Your task to perform on an android device: move a message to another label in the gmail app Image 0: 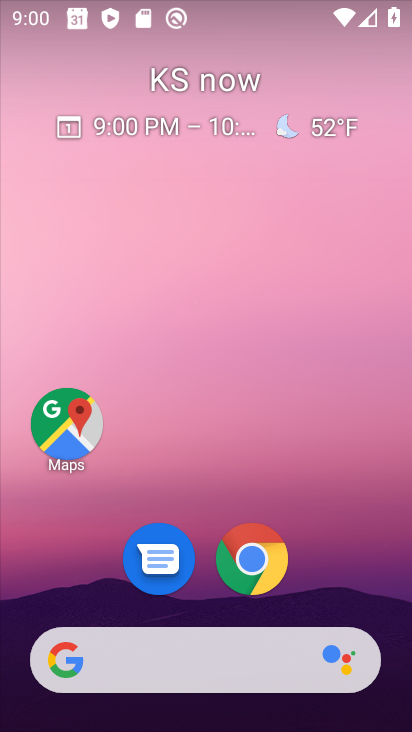
Step 0: drag from (330, 503) to (296, 9)
Your task to perform on an android device: move a message to another label in the gmail app Image 1: 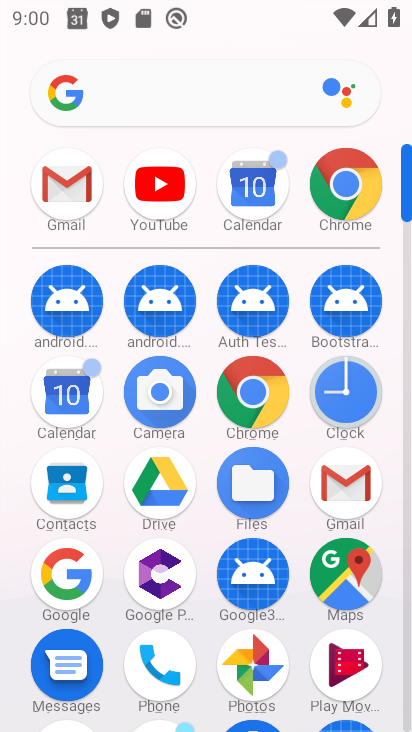
Step 1: drag from (8, 554) to (4, 211)
Your task to perform on an android device: move a message to another label in the gmail app Image 2: 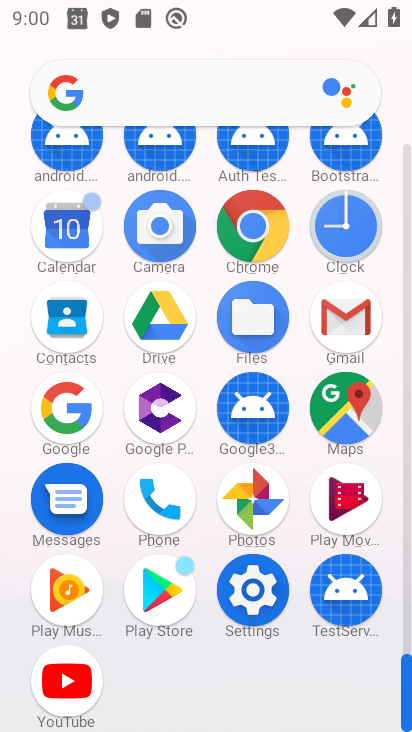
Step 2: click (346, 313)
Your task to perform on an android device: move a message to another label in the gmail app Image 3: 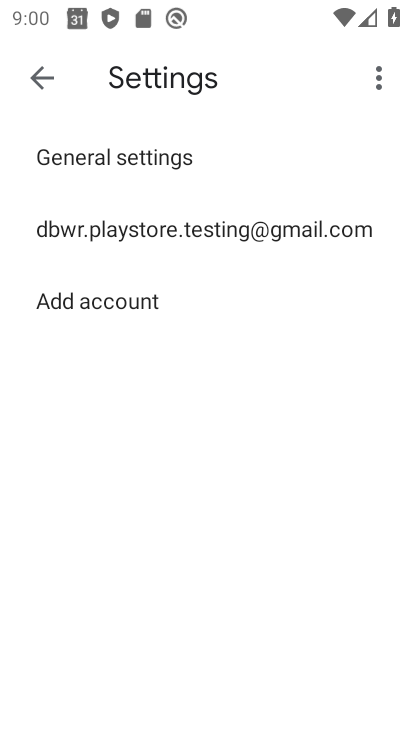
Step 3: click (34, 73)
Your task to perform on an android device: move a message to another label in the gmail app Image 4: 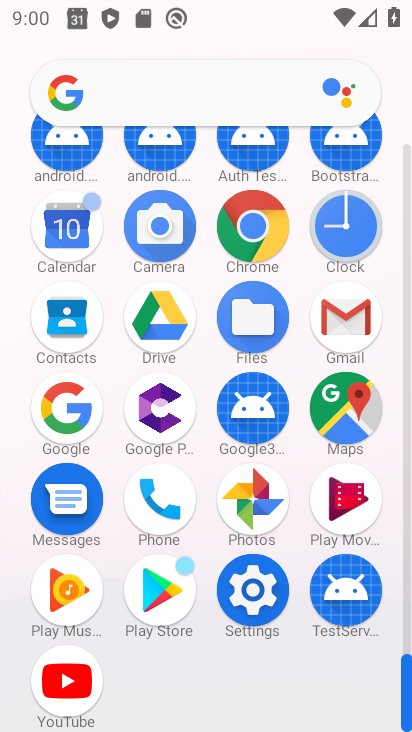
Step 4: click (346, 305)
Your task to perform on an android device: move a message to another label in the gmail app Image 5: 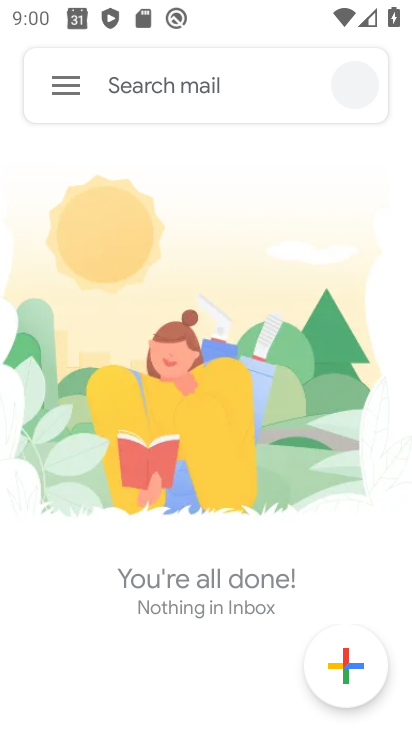
Step 5: click (62, 81)
Your task to perform on an android device: move a message to another label in the gmail app Image 6: 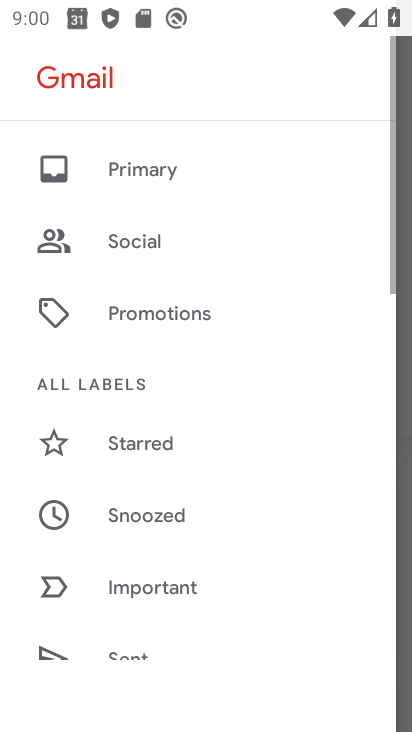
Step 6: click (209, 167)
Your task to perform on an android device: move a message to another label in the gmail app Image 7: 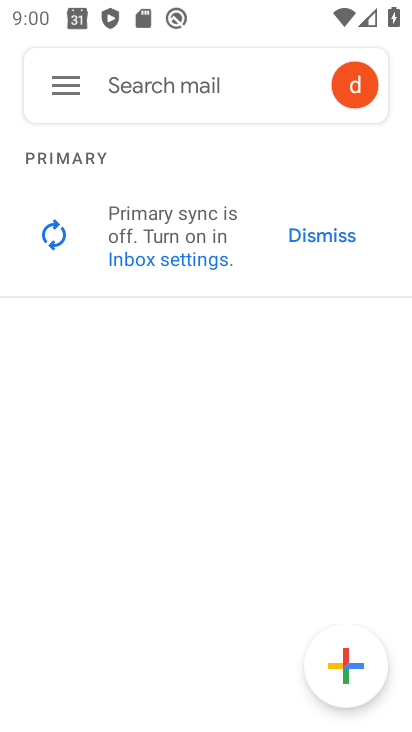
Step 7: click (59, 79)
Your task to perform on an android device: move a message to another label in the gmail app Image 8: 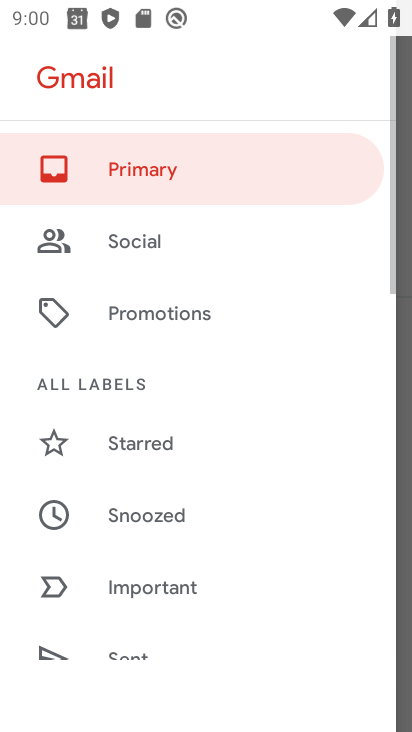
Step 8: drag from (242, 389) to (250, 72)
Your task to perform on an android device: move a message to another label in the gmail app Image 9: 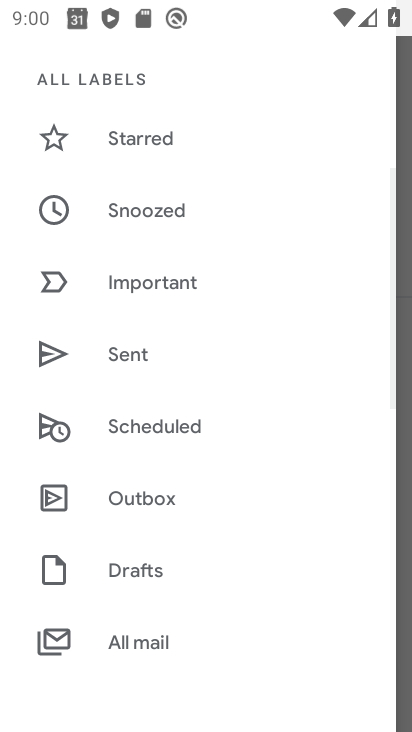
Step 9: drag from (236, 514) to (260, 129)
Your task to perform on an android device: move a message to another label in the gmail app Image 10: 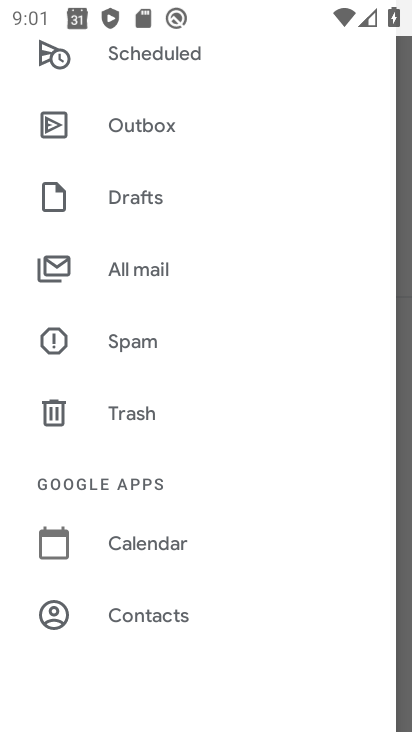
Step 10: drag from (249, 563) to (301, 91)
Your task to perform on an android device: move a message to another label in the gmail app Image 11: 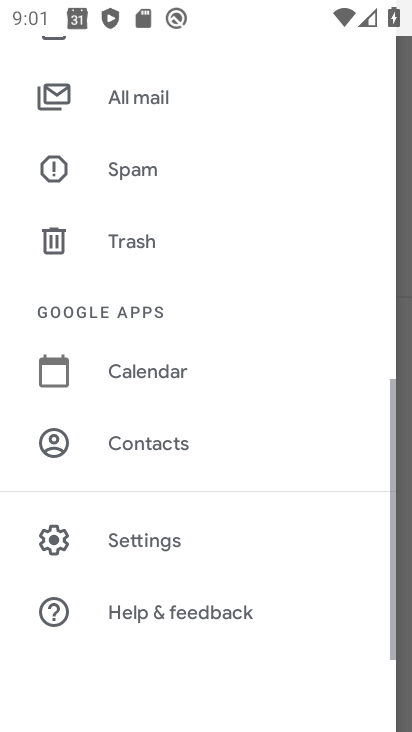
Step 11: drag from (301, 123) to (282, 599)
Your task to perform on an android device: move a message to another label in the gmail app Image 12: 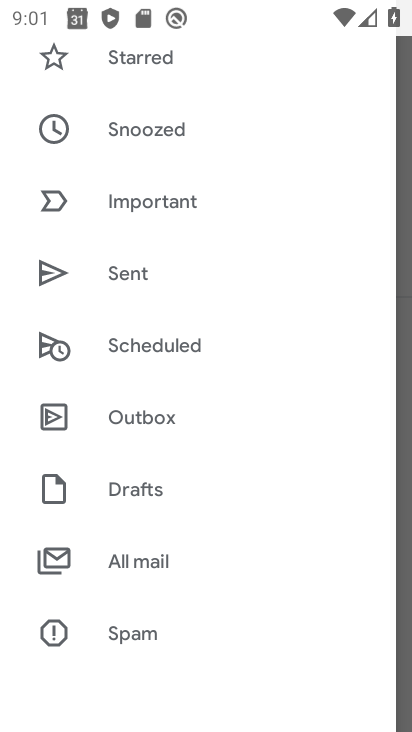
Step 12: click (136, 551)
Your task to perform on an android device: move a message to another label in the gmail app Image 13: 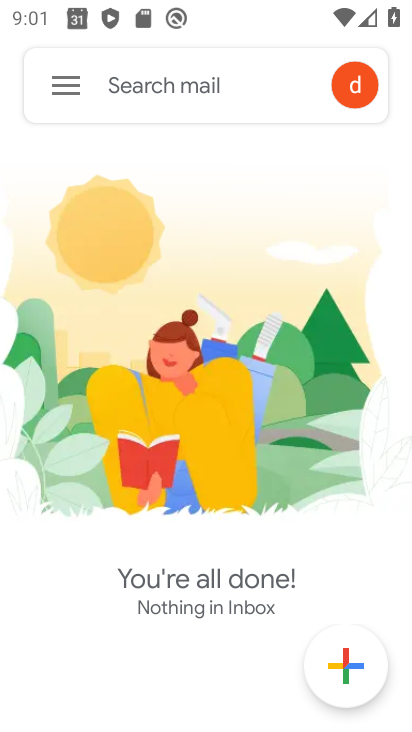
Step 13: task complete